Your task to perform on an android device: choose inbox layout in the gmail app Image 0: 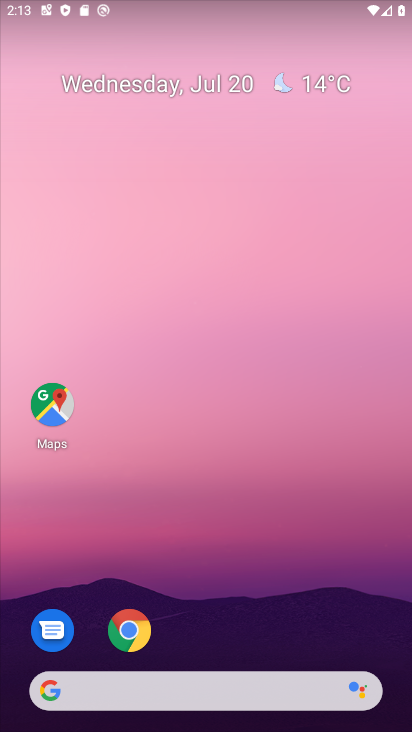
Step 0: press home button
Your task to perform on an android device: choose inbox layout in the gmail app Image 1: 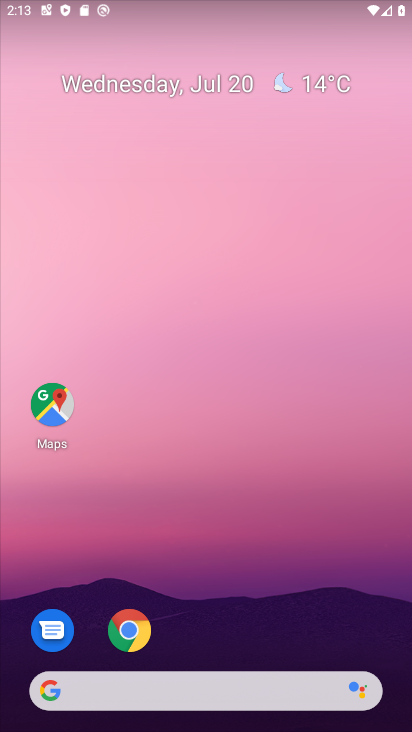
Step 1: drag from (274, 699) to (269, 174)
Your task to perform on an android device: choose inbox layout in the gmail app Image 2: 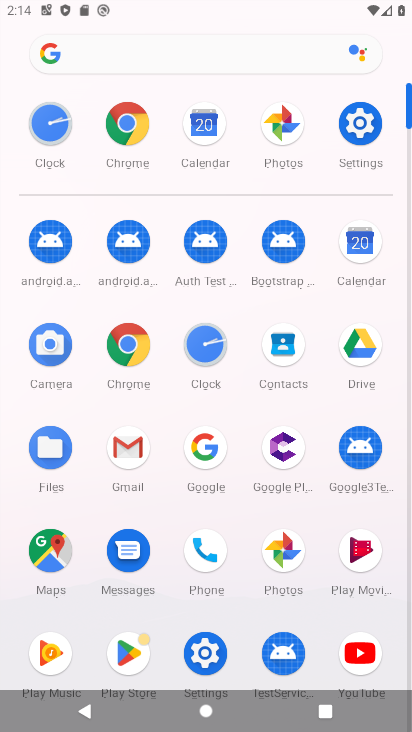
Step 2: click (135, 435)
Your task to perform on an android device: choose inbox layout in the gmail app Image 3: 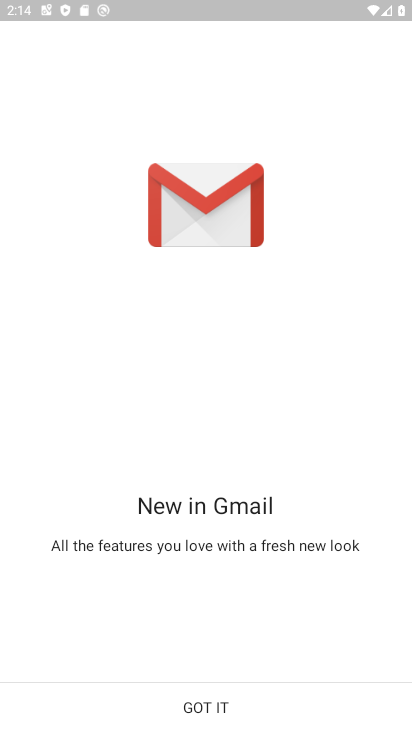
Step 3: click (217, 708)
Your task to perform on an android device: choose inbox layout in the gmail app Image 4: 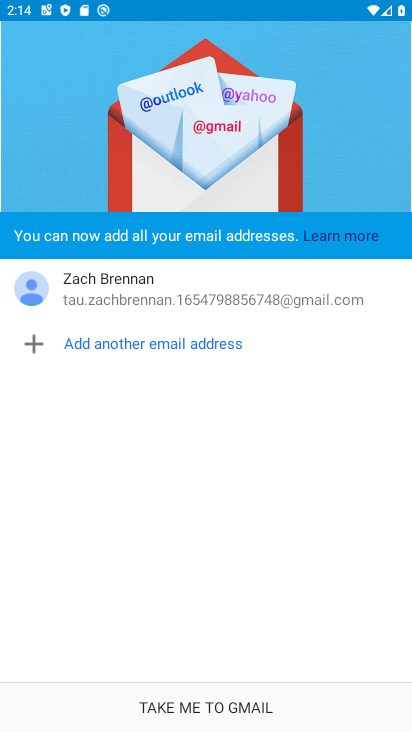
Step 4: click (217, 704)
Your task to perform on an android device: choose inbox layout in the gmail app Image 5: 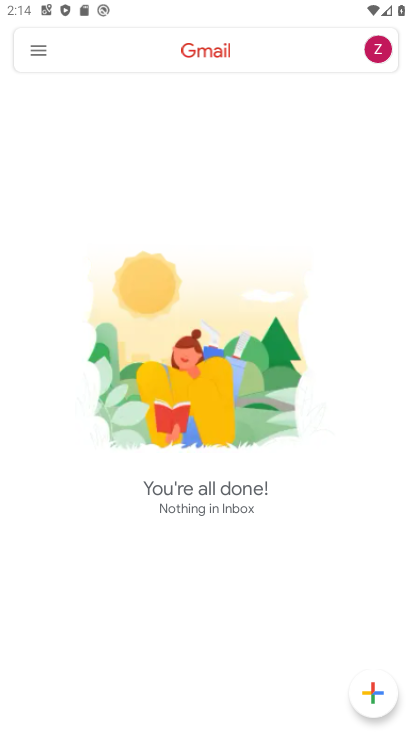
Step 5: click (33, 61)
Your task to perform on an android device: choose inbox layout in the gmail app Image 6: 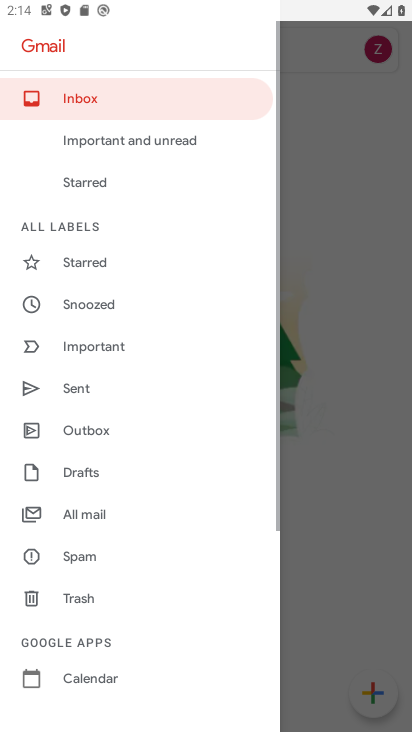
Step 6: drag from (103, 664) to (105, 568)
Your task to perform on an android device: choose inbox layout in the gmail app Image 7: 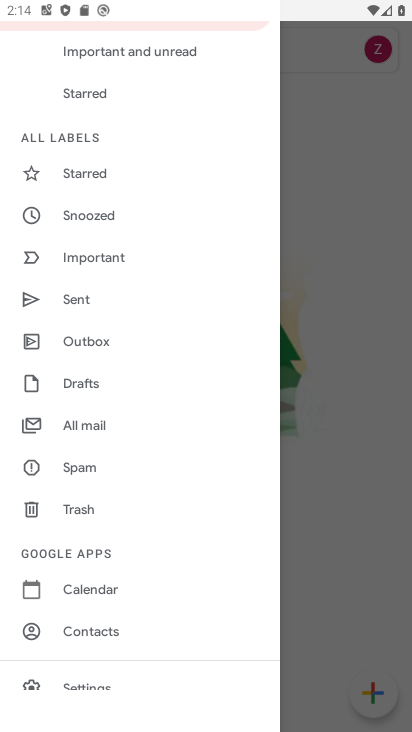
Step 7: click (90, 679)
Your task to perform on an android device: choose inbox layout in the gmail app Image 8: 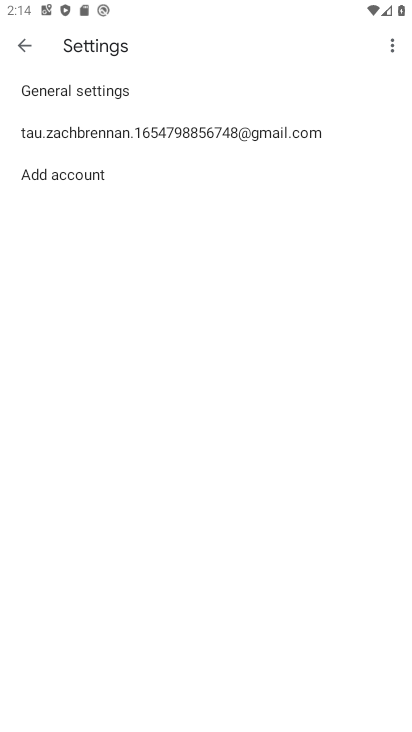
Step 8: click (196, 135)
Your task to perform on an android device: choose inbox layout in the gmail app Image 9: 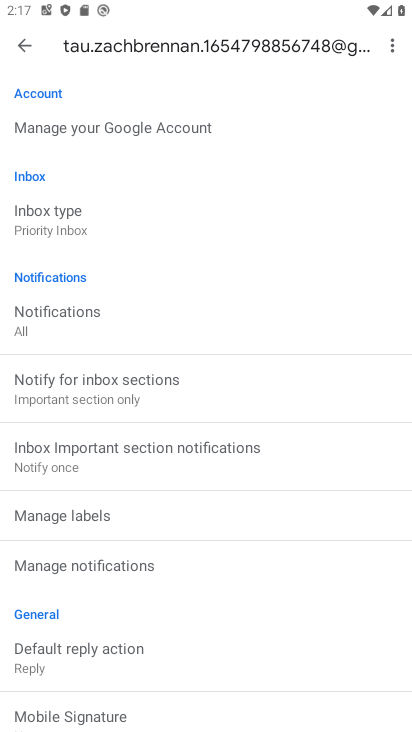
Step 9: task complete